Your task to perform on an android device: Open Google Image 0: 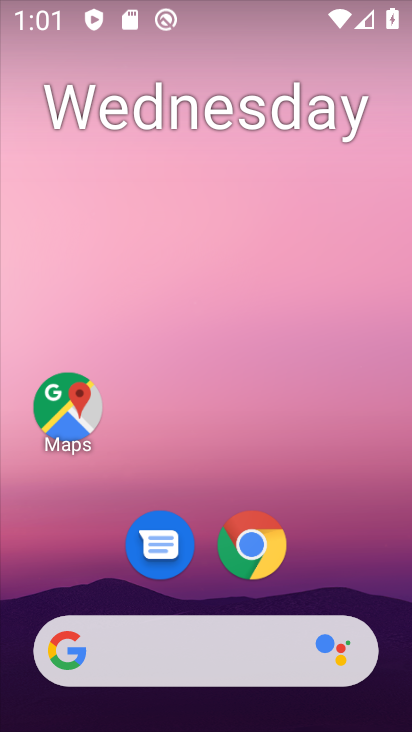
Step 0: drag from (194, 584) to (233, 319)
Your task to perform on an android device: Open Google Image 1: 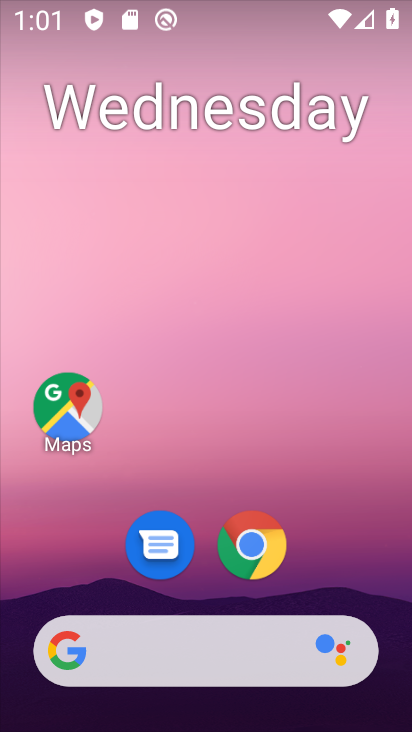
Step 1: drag from (202, 599) to (240, 131)
Your task to perform on an android device: Open Google Image 2: 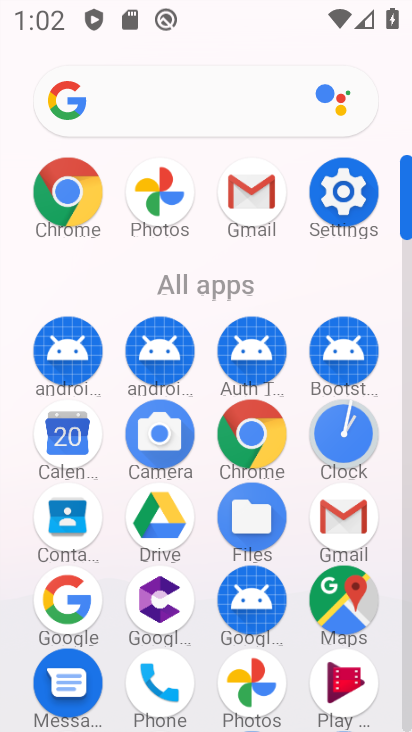
Step 2: click (63, 610)
Your task to perform on an android device: Open Google Image 3: 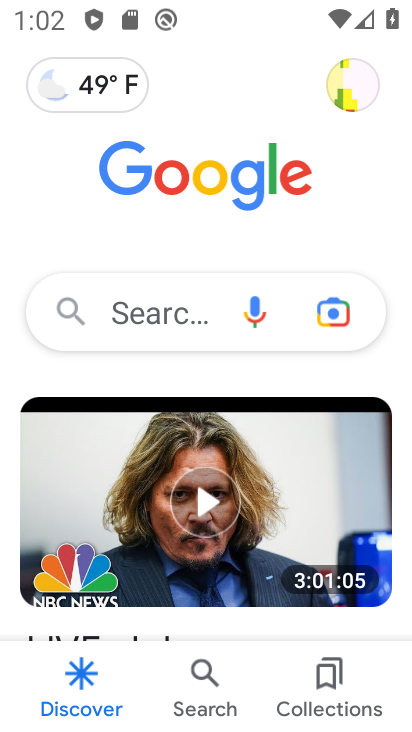
Step 3: task complete